Your task to perform on an android device: Open the Play Movies app and select the watchlist tab. Image 0: 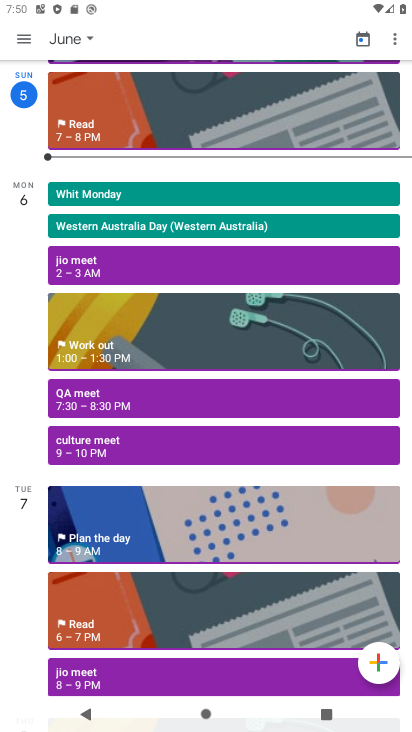
Step 0: press home button
Your task to perform on an android device: Open the Play Movies app and select the watchlist tab. Image 1: 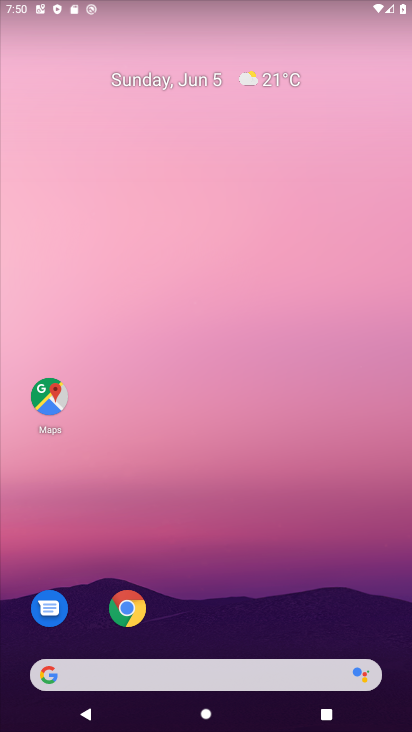
Step 1: drag from (377, 578) to (352, 202)
Your task to perform on an android device: Open the Play Movies app and select the watchlist tab. Image 2: 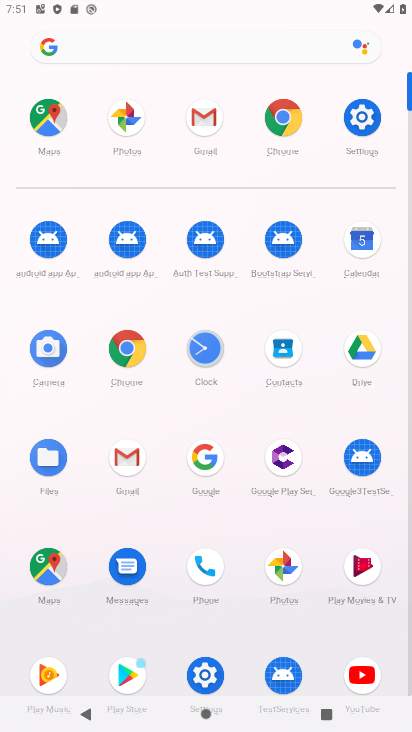
Step 2: click (367, 570)
Your task to perform on an android device: Open the Play Movies app and select the watchlist tab. Image 3: 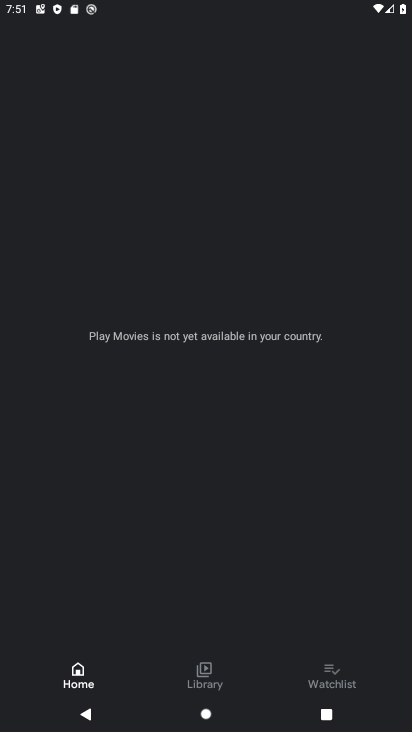
Step 3: click (345, 676)
Your task to perform on an android device: Open the Play Movies app and select the watchlist tab. Image 4: 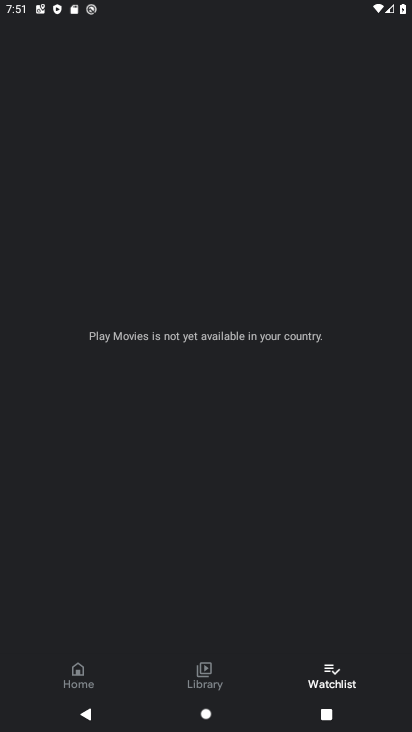
Step 4: task complete